Your task to perform on an android device: empty trash in google photos Image 0: 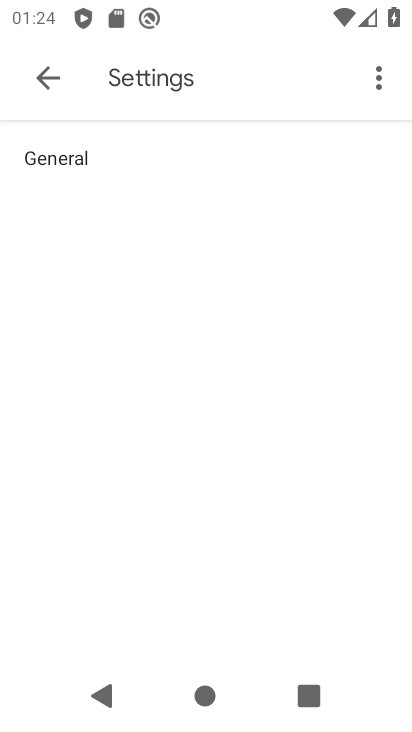
Step 0: press home button
Your task to perform on an android device: empty trash in google photos Image 1: 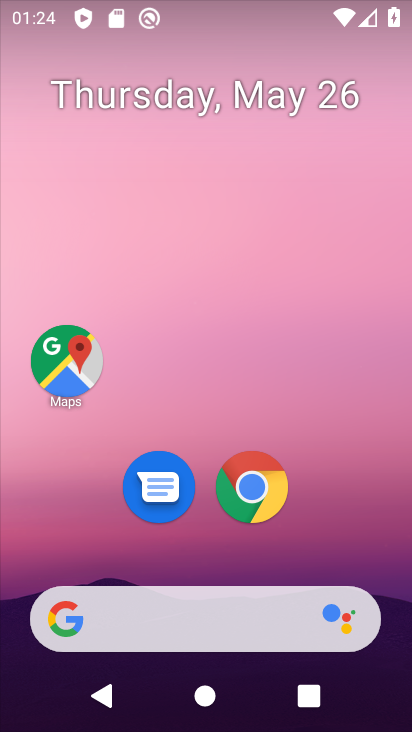
Step 1: drag from (215, 622) to (187, 84)
Your task to perform on an android device: empty trash in google photos Image 2: 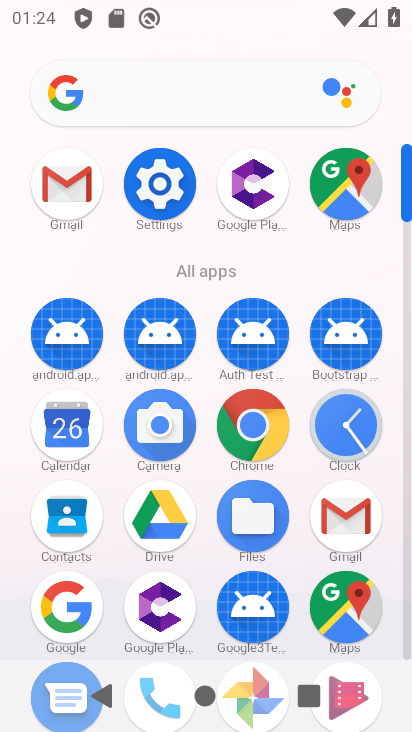
Step 2: drag from (198, 607) to (207, 107)
Your task to perform on an android device: empty trash in google photos Image 3: 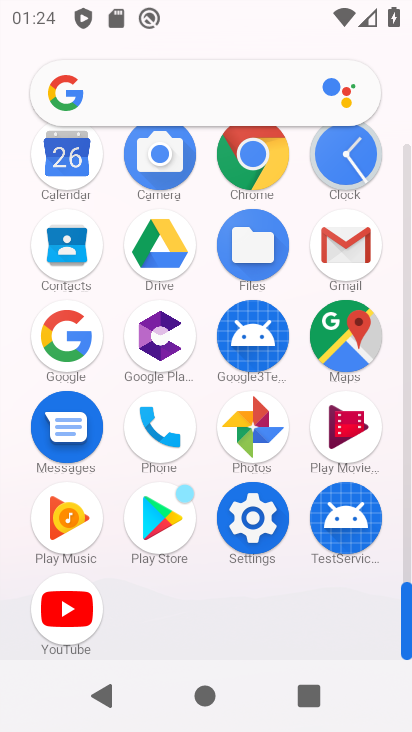
Step 3: click (260, 429)
Your task to perform on an android device: empty trash in google photos Image 4: 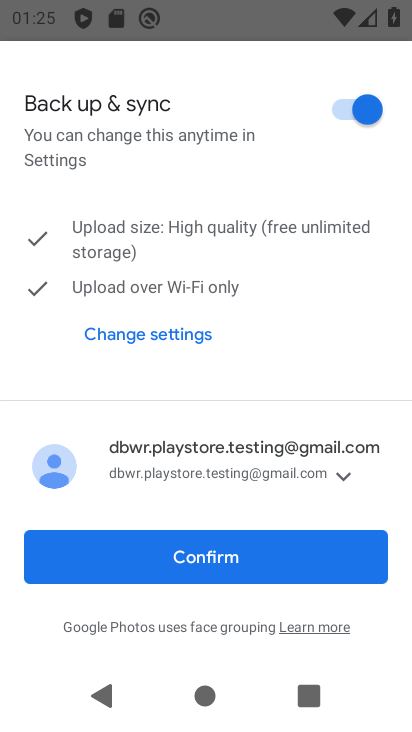
Step 4: click (261, 560)
Your task to perform on an android device: empty trash in google photos Image 5: 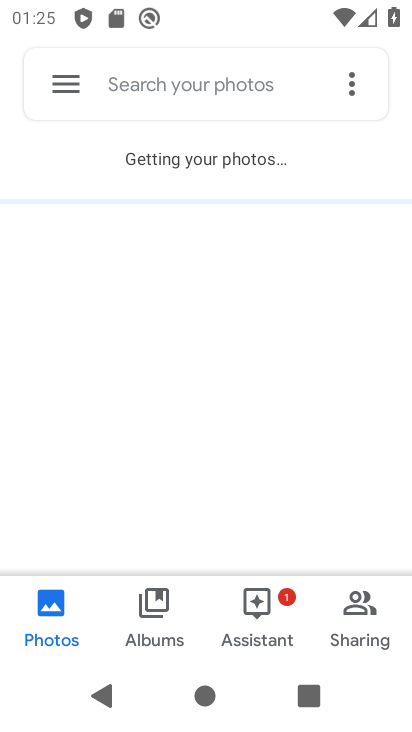
Step 5: click (64, 94)
Your task to perform on an android device: empty trash in google photos Image 6: 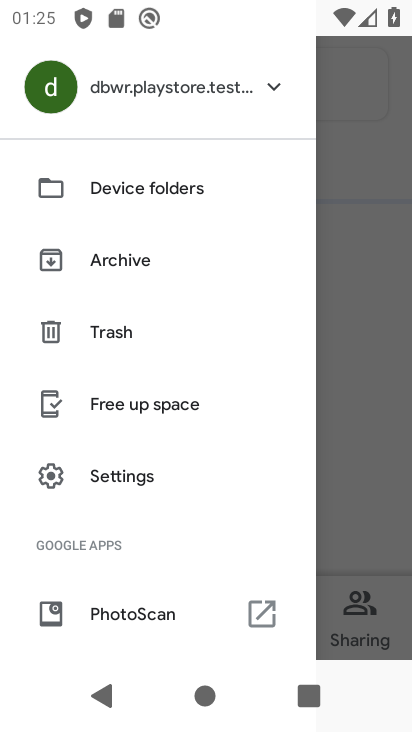
Step 6: click (86, 326)
Your task to perform on an android device: empty trash in google photos Image 7: 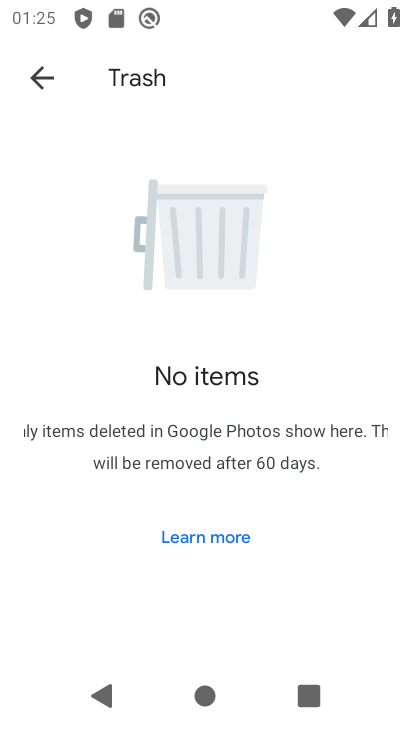
Step 7: task complete